Your task to perform on an android device: turn on the 24-hour format for clock Image 0: 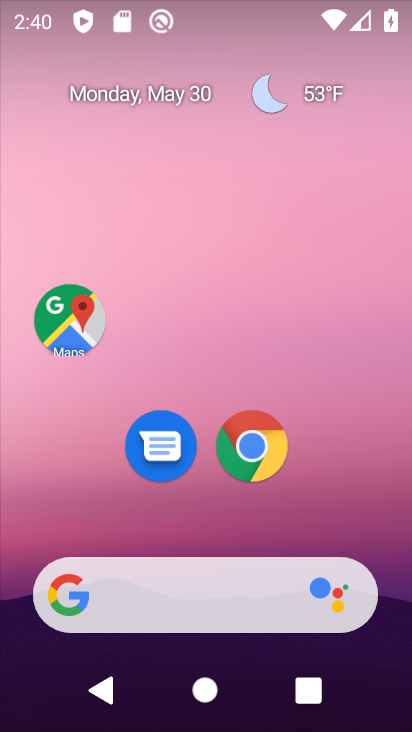
Step 0: drag from (130, 552) to (226, 103)
Your task to perform on an android device: turn on the 24-hour format for clock Image 1: 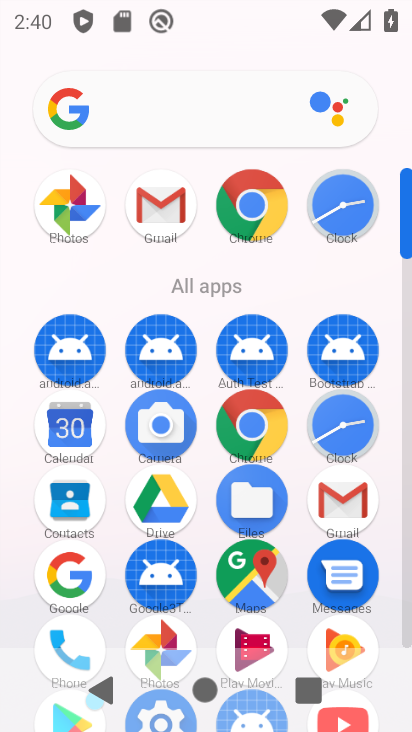
Step 1: click (347, 447)
Your task to perform on an android device: turn on the 24-hour format for clock Image 2: 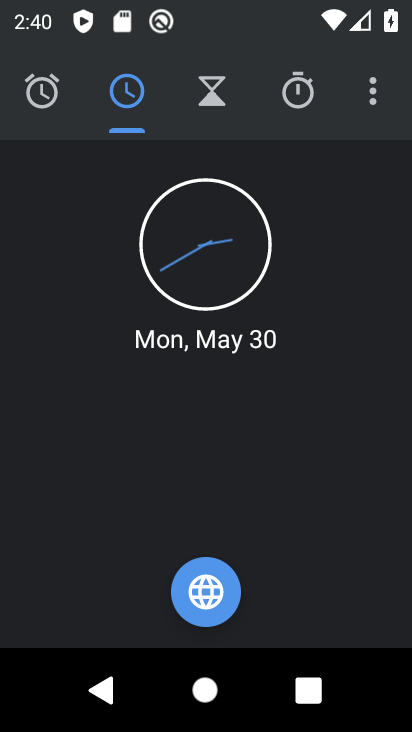
Step 2: click (395, 78)
Your task to perform on an android device: turn on the 24-hour format for clock Image 3: 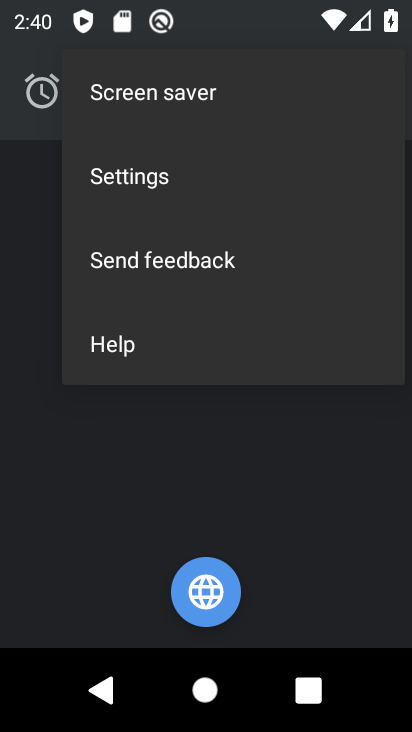
Step 3: click (340, 191)
Your task to perform on an android device: turn on the 24-hour format for clock Image 4: 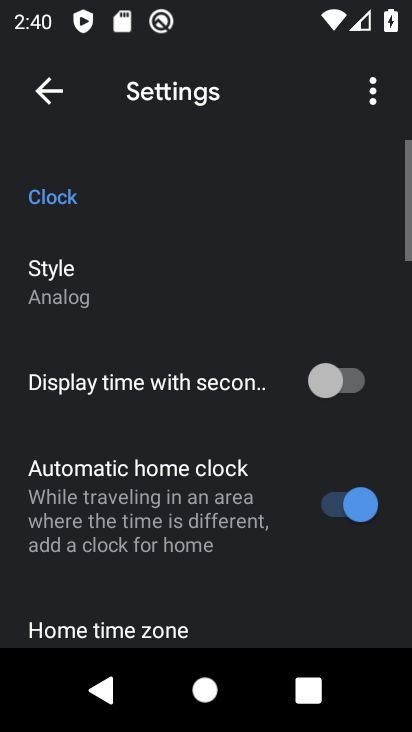
Step 4: drag from (184, 553) to (256, 274)
Your task to perform on an android device: turn on the 24-hour format for clock Image 5: 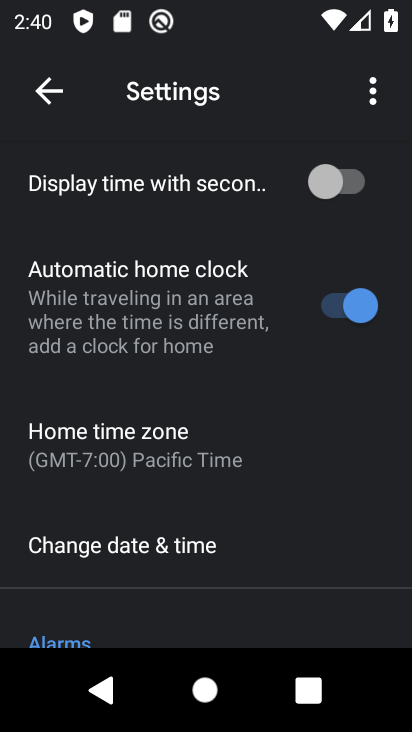
Step 5: click (212, 544)
Your task to perform on an android device: turn on the 24-hour format for clock Image 6: 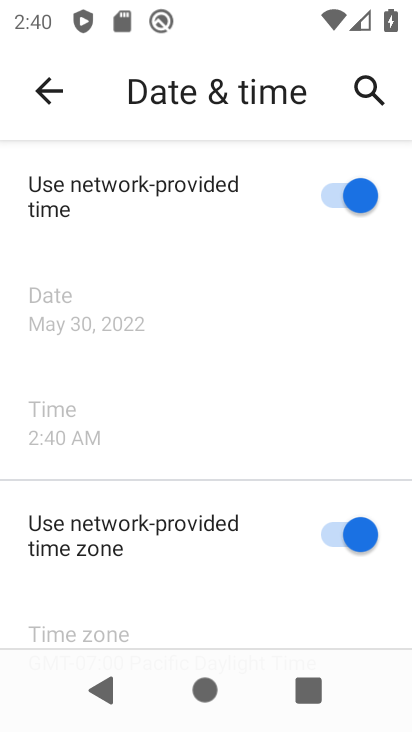
Step 6: drag from (191, 605) to (314, 214)
Your task to perform on an android device: turn on the 24-hour format for clock Image 7: 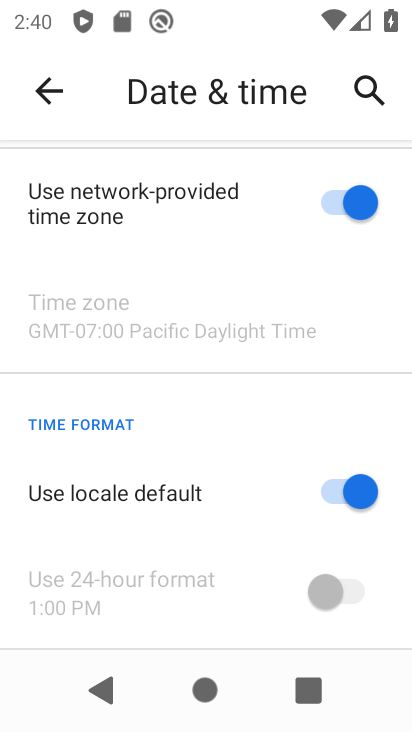
Step 7: drag from (140, 573) to (200, 393)
Your task to perform on an android device: turn on the 24-hour format for clock Image 8: 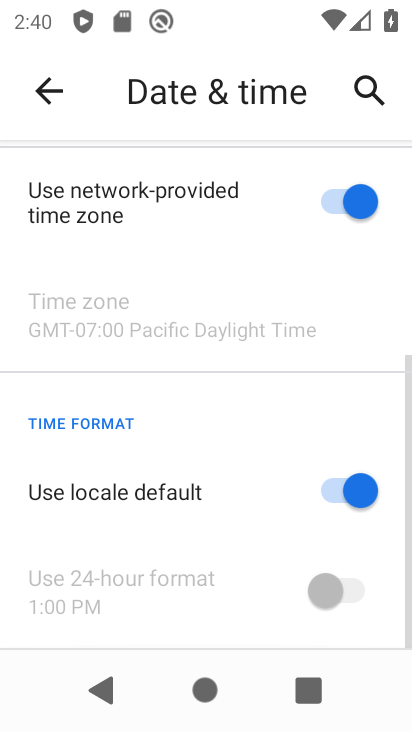
Step 8: click (335, 493)
Your task to perform on an android device: turn on the 24-hour format for clock Image 9: 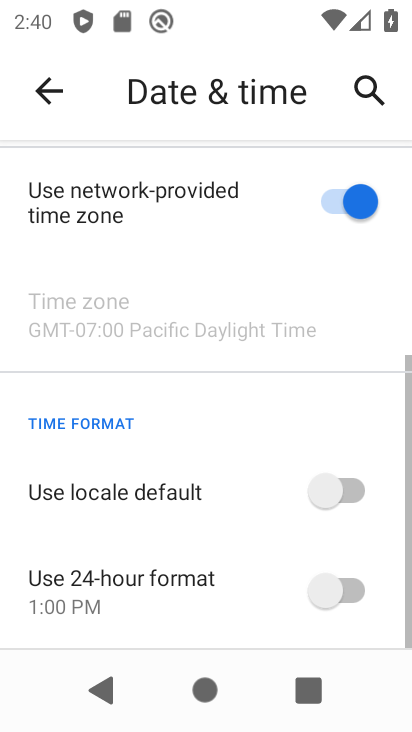
Step 9: click (370, 599)
Your task to perform on an android device: turn on the 24-hour format for clock Image 10: 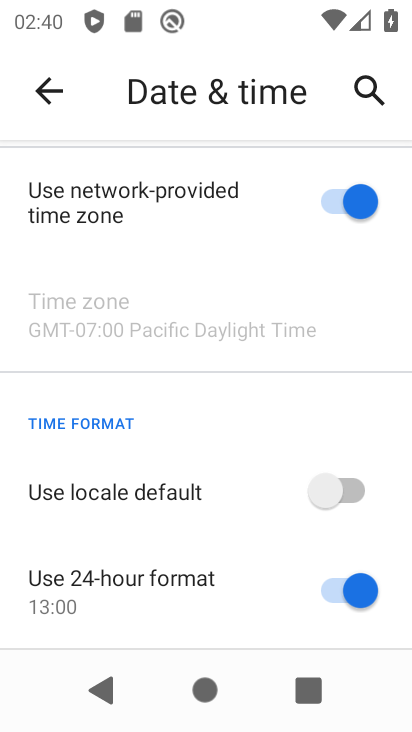
Step 10: task complete